Your task to perform on an android device: change alarm snooze length Image 0: 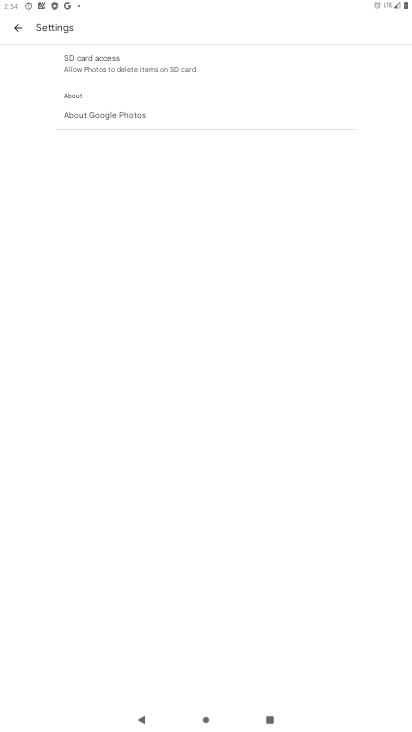
Step 0: press home button
Your task to perform on an android device: change alarm snooze length Image 1: 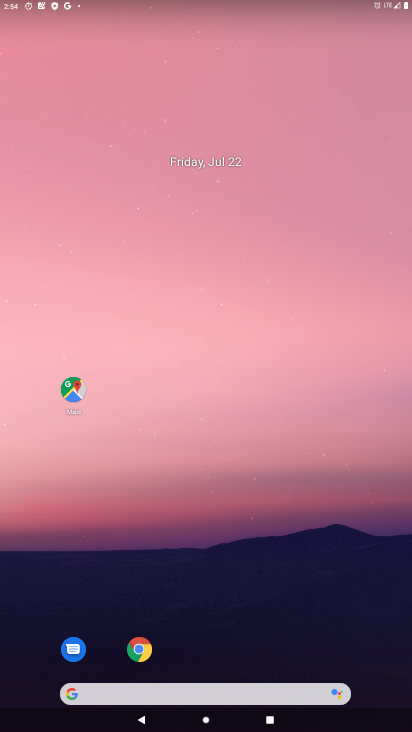
Step 1: drag from (275, 572) to (249, 75)
Your task to perform on an android device: change alarm snooze length Image 2: 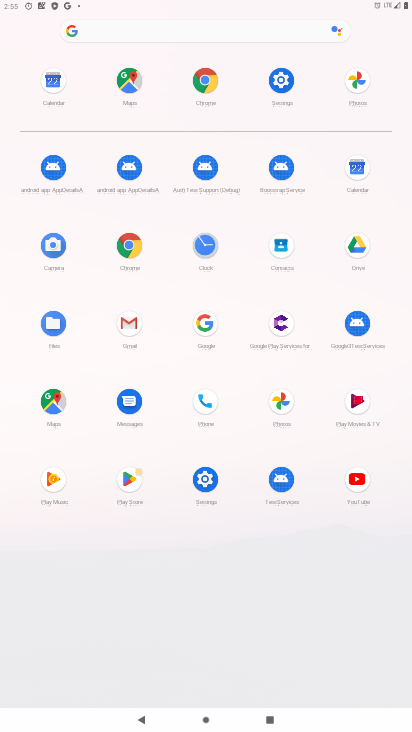
Step 2: click (199, 242)
Your task to perform on an android device: change alarm snooze length Image 3: 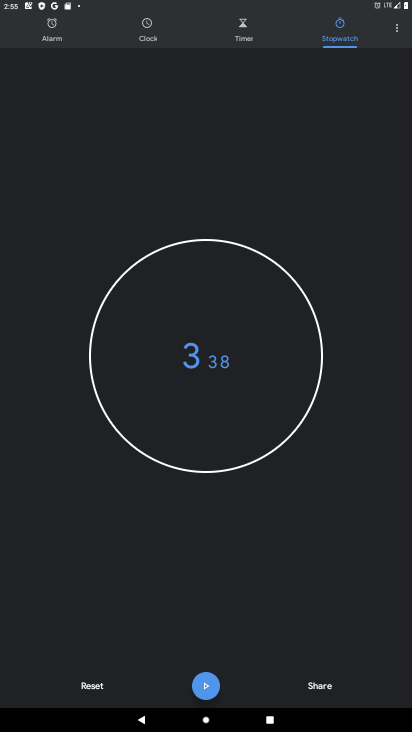
Step 3: click (394, 21)
Your task to perform on an android device: change alarm snooze length Image 4: 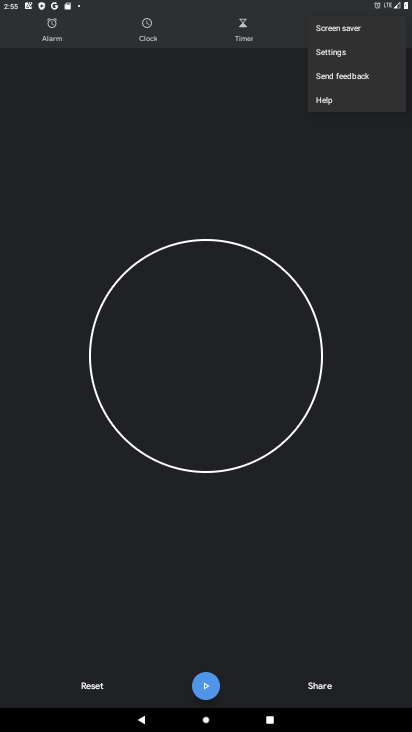
Step 4: click (334, 48)
Your task to perform on an android device: change alarm snooze length Image 5: 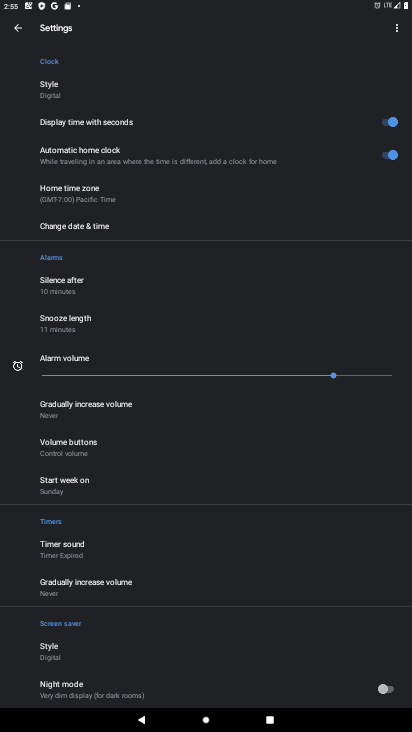
Step 5: click (80, 326)
Your task to perform on an android device: change alarm snooze length Image 6: 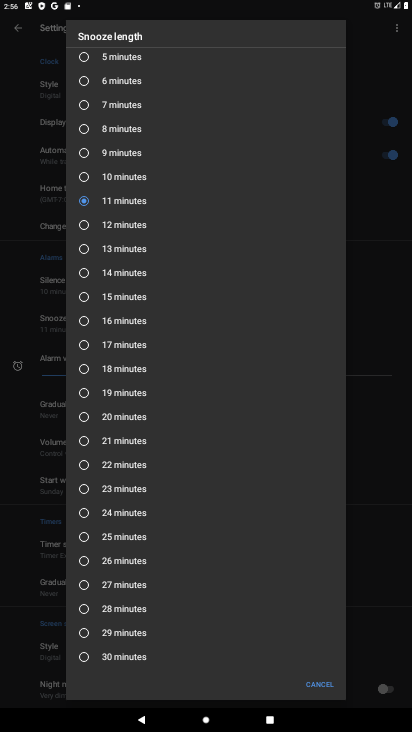
Step 6: click (134, 230)
Your task to perform on an android device: change alarm snooze length Image 7: 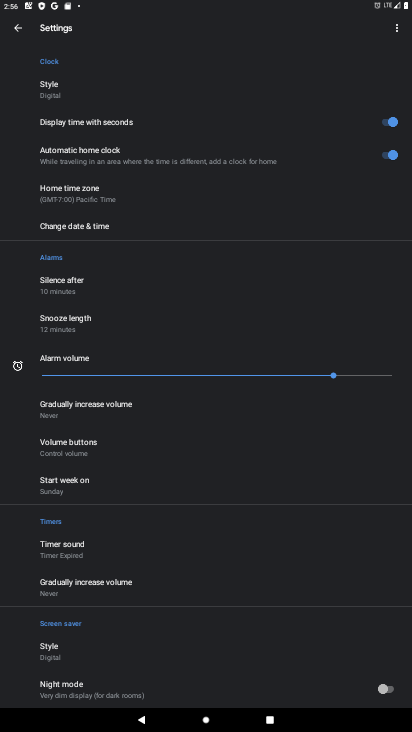
Step 7: task complete